Your task to perform on an android device: Go to accessibility settings Image 0: 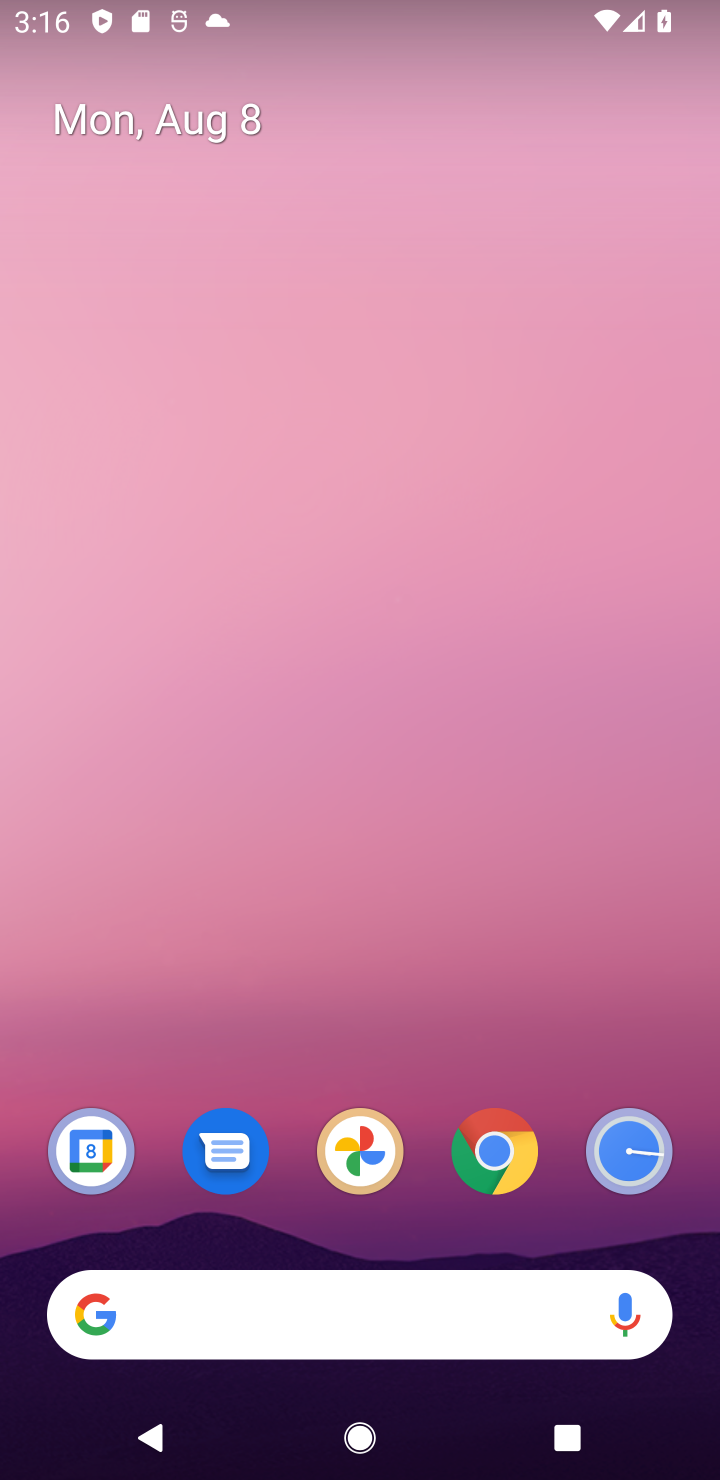
Step 0: drag from (350, 1043) to (347, 268)
Your task to perform on an android device: Go to accessibility settings Image 1: 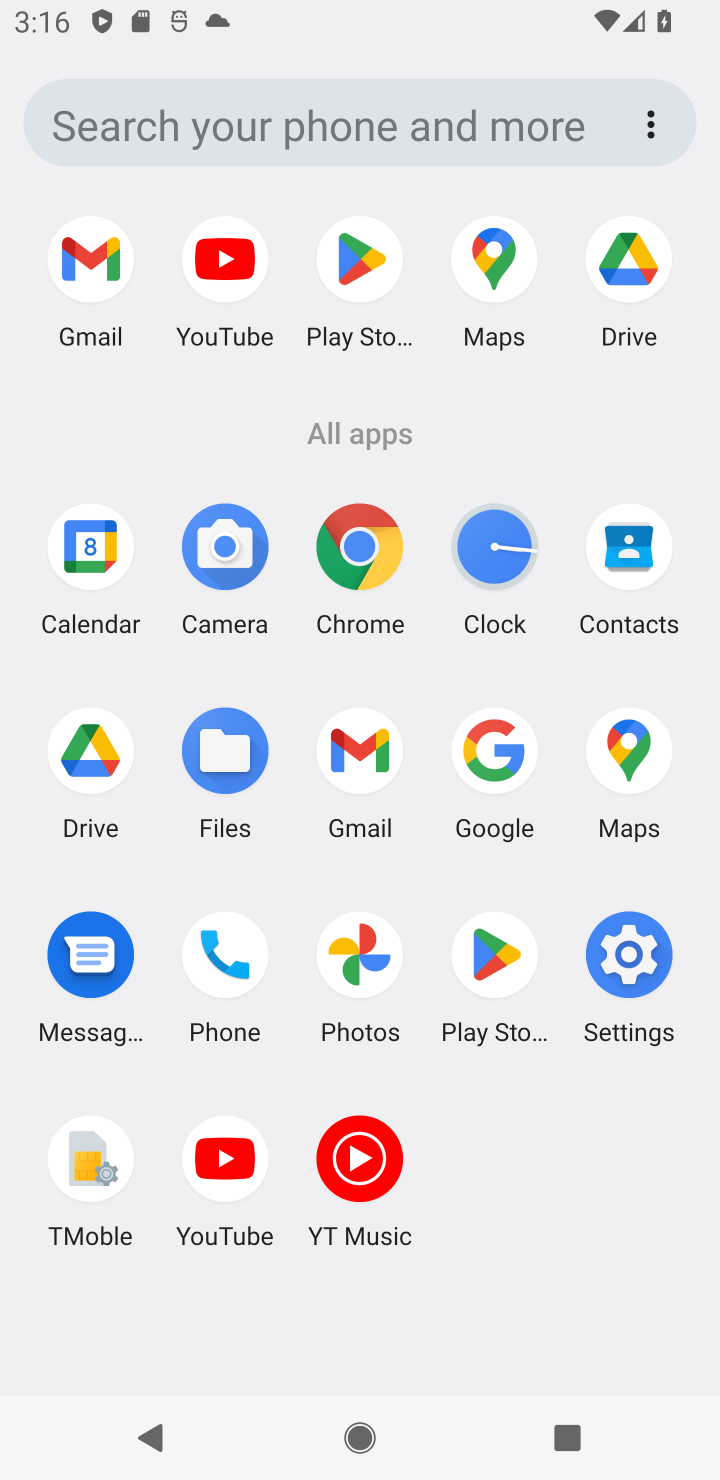
Step 1: click (620, 980)
Your task to perform on an android device: Go to accessibility settings Image 2: 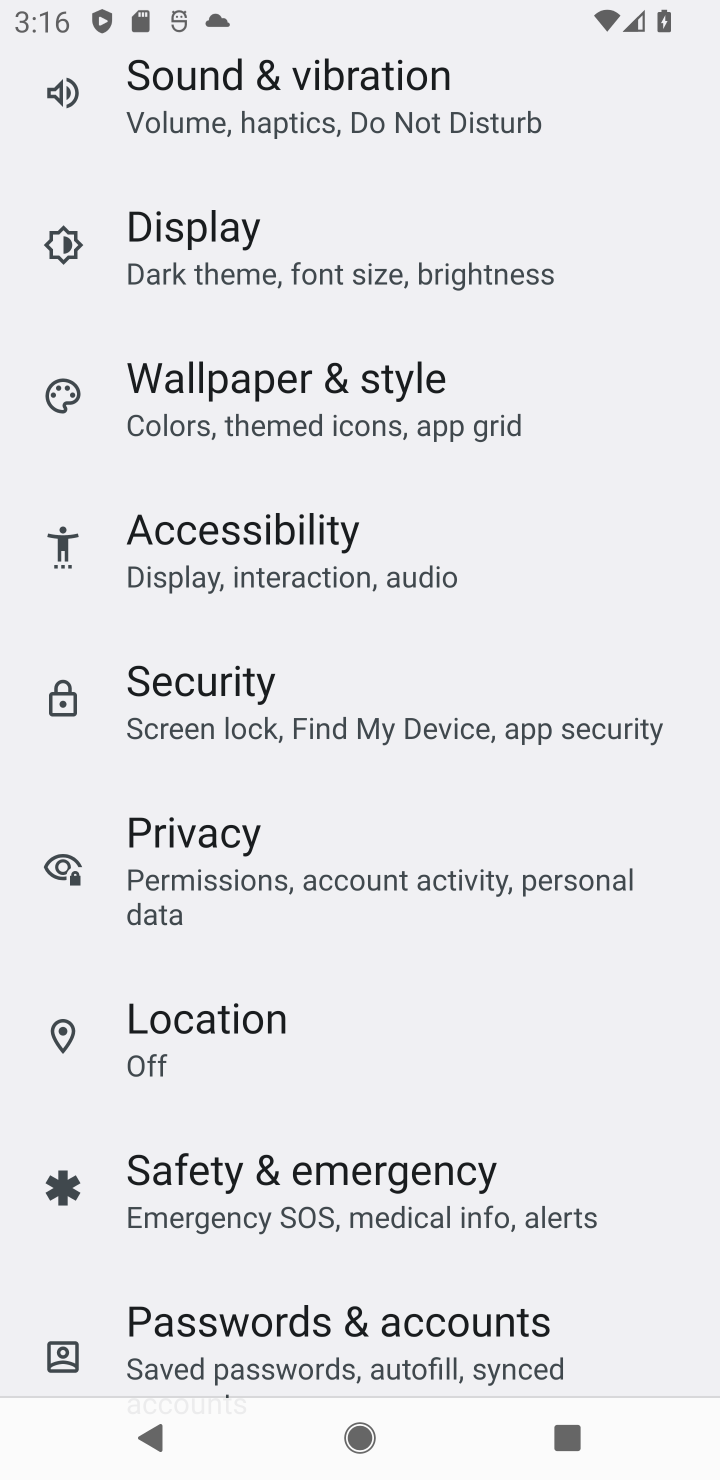
Step 2: click (258, 581)
Your task to perform on an android device: Go to accessibility settings Image 3: 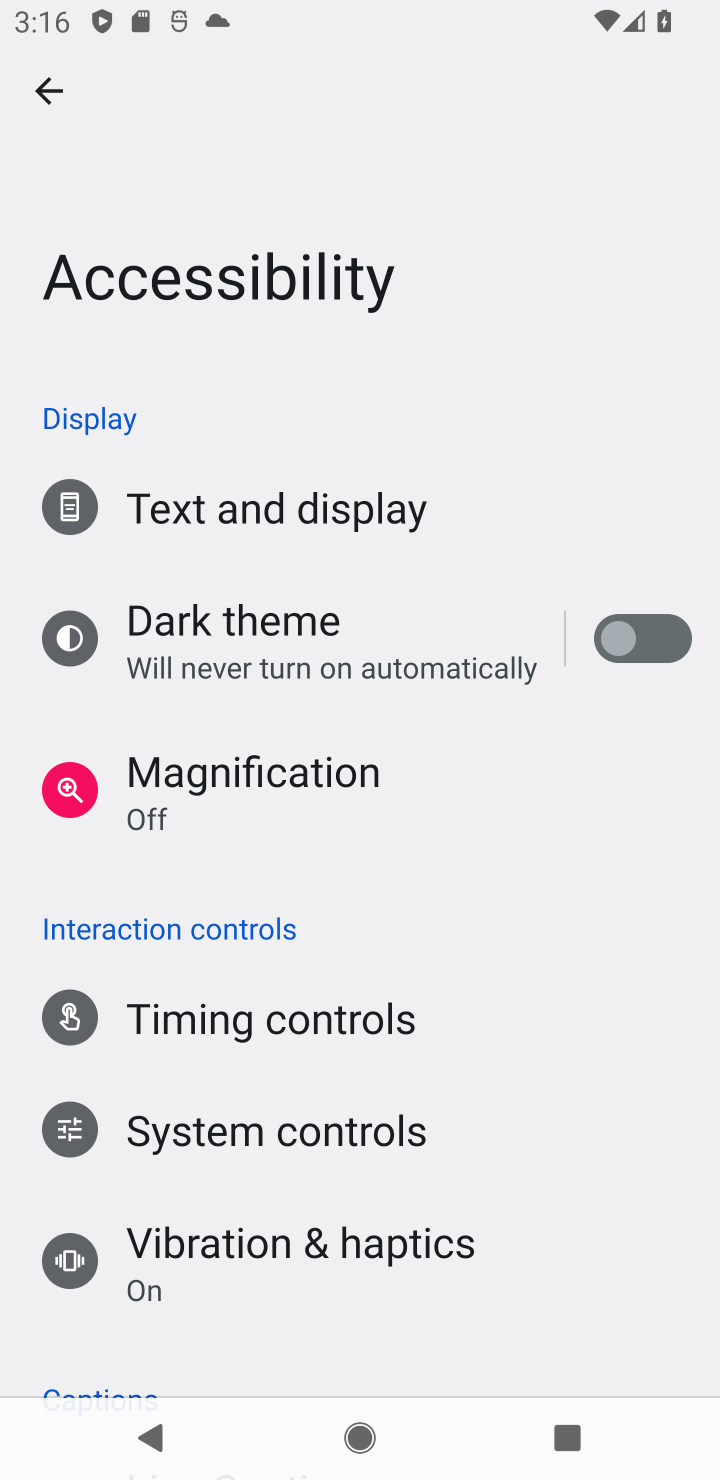
Step 3: task complete